Your task to perform on an android device: What's the weather going to be this weekend? Image 0: 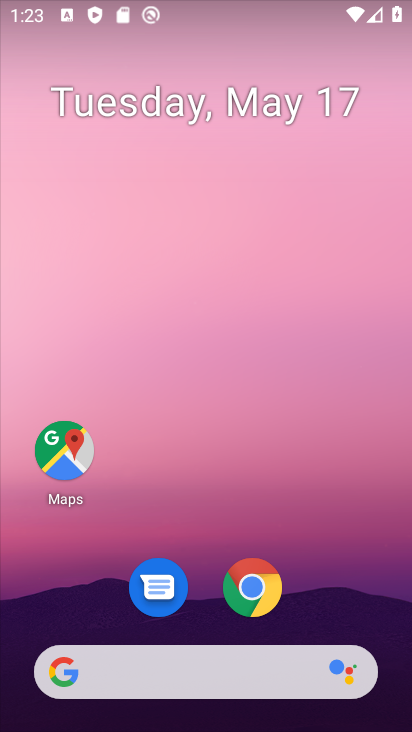
Step 0: drag from (187, 585) to (273, 3)
Your task to perform on an android device: What's the weather going to be this weekend? Image 1: 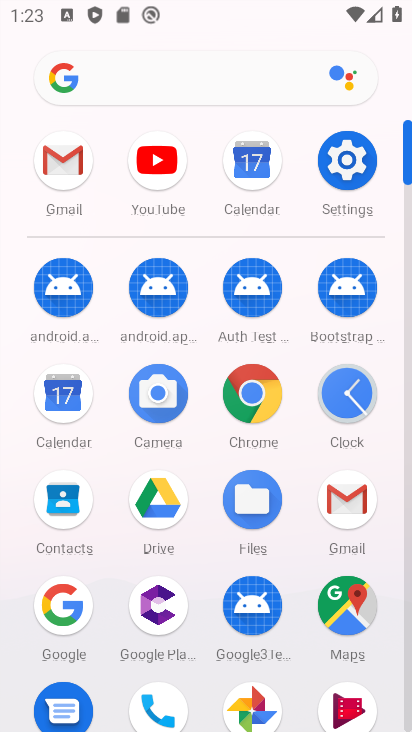
Step 1: click (135, 79)
Your task to perform on an android device: What's the weather going to be this weekend? Image 2: 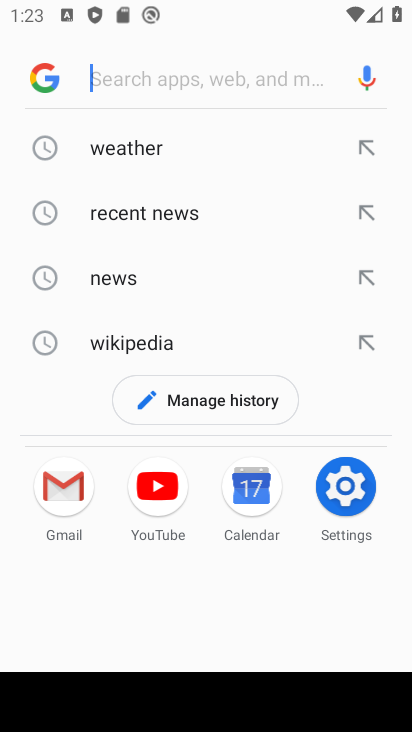
Step 2: type "weather going to be this weekend"
Your task to perform on an android device: What's the weather going to be this weekend? Image 3: 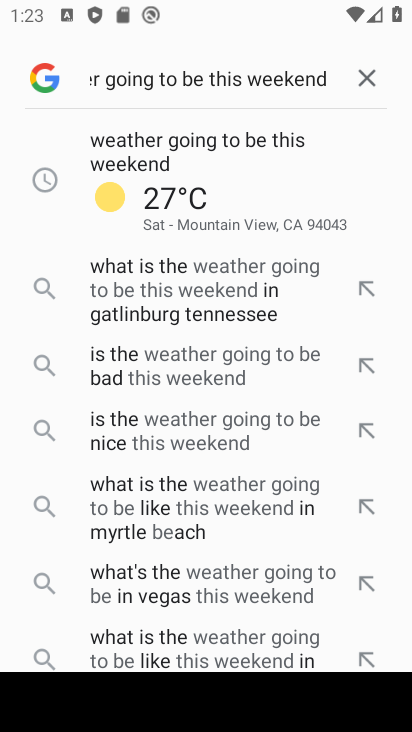
Step 3: click (291, 146)
Your task to perform on an android device: What's the weather going to be this weekend? Image 4: 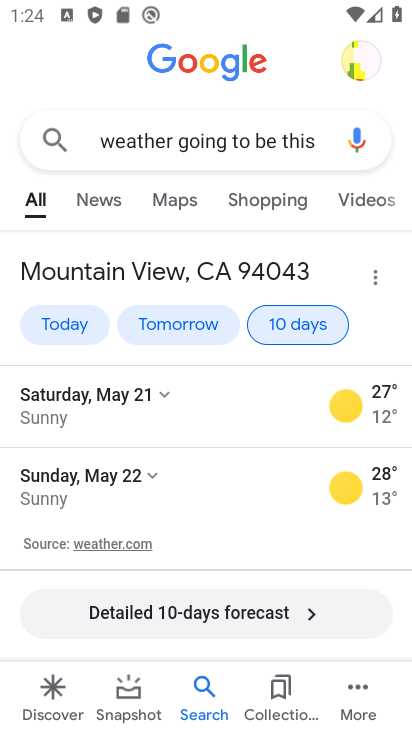
Step 4: task complete